Your task to perform on an android device: Searchfor good French restaurants Image 0: 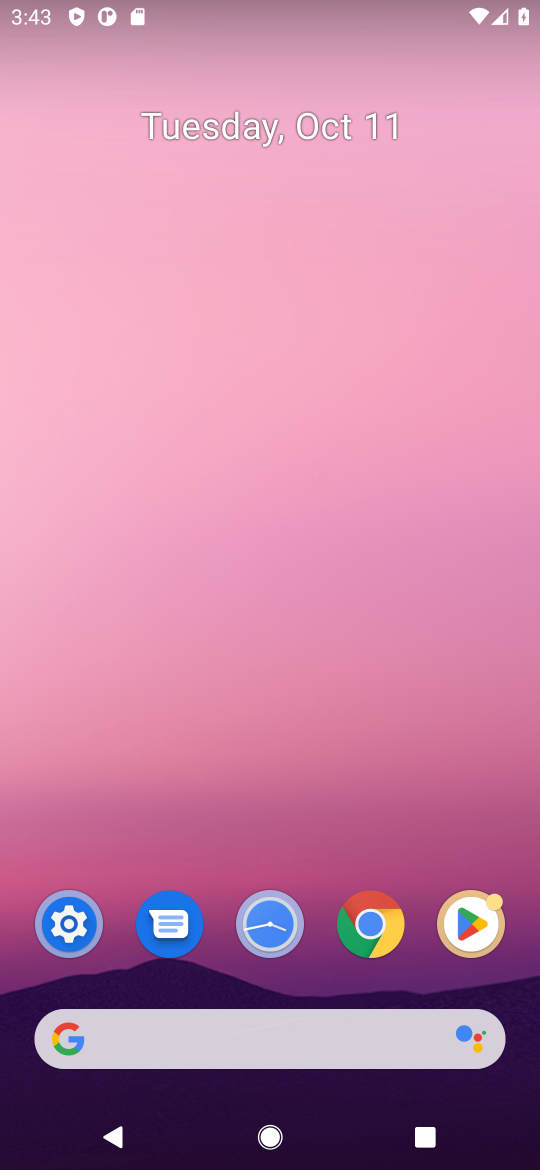
Step 0: drag from (338, 937) to (399, 171)
Your task to perform on an android device: Searchfor good French restaurants Image 1: 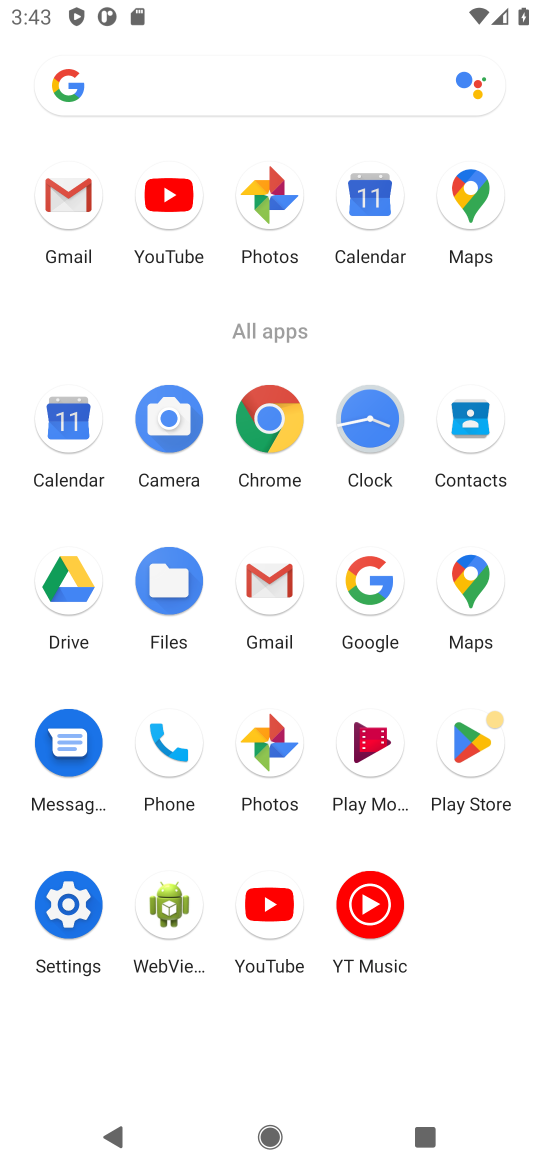
Step 1: click (274, 418)
Your task to perform on an android device: Searchfor good French restaurants Image 2: 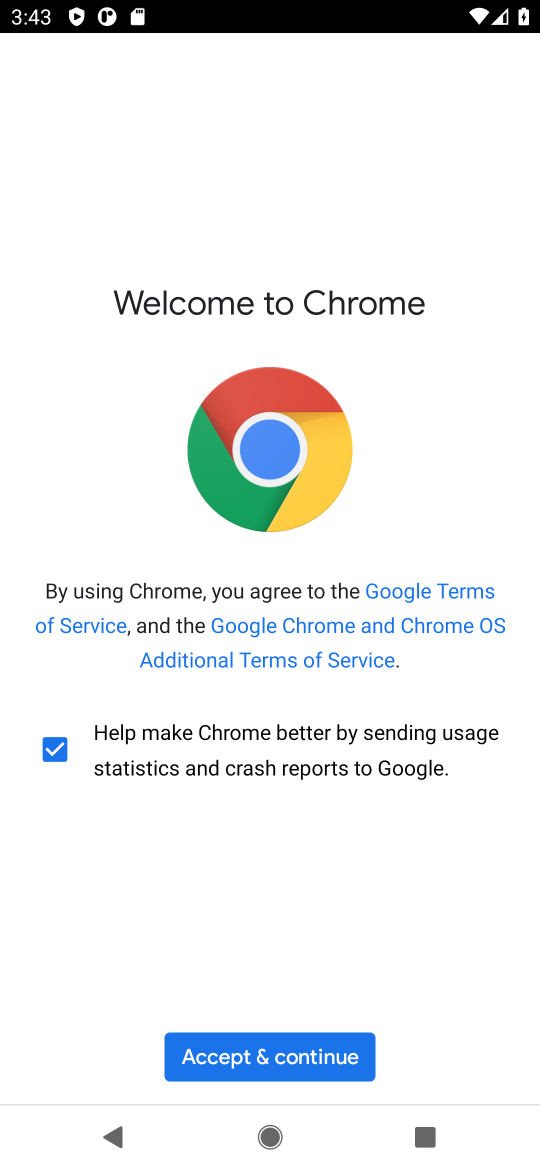
Step 2: click (266, 1055)
Your task to perform on an android device: Searchfor good French restaurants Image 3: 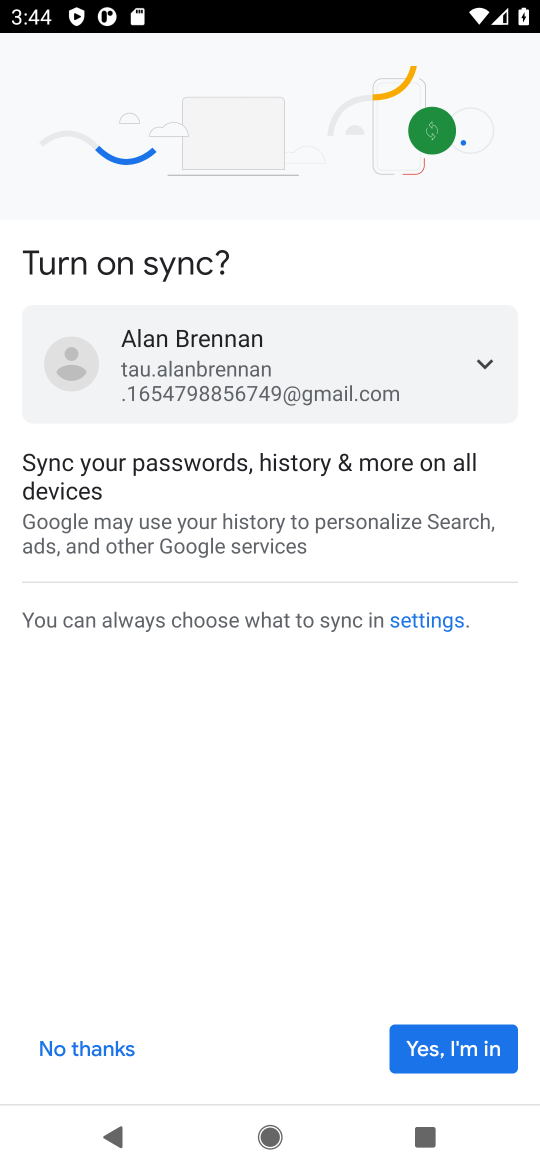
Step 3: click (486, 1046)
Your task to perform on an android device: Searchfor good French restaurants Image 4: 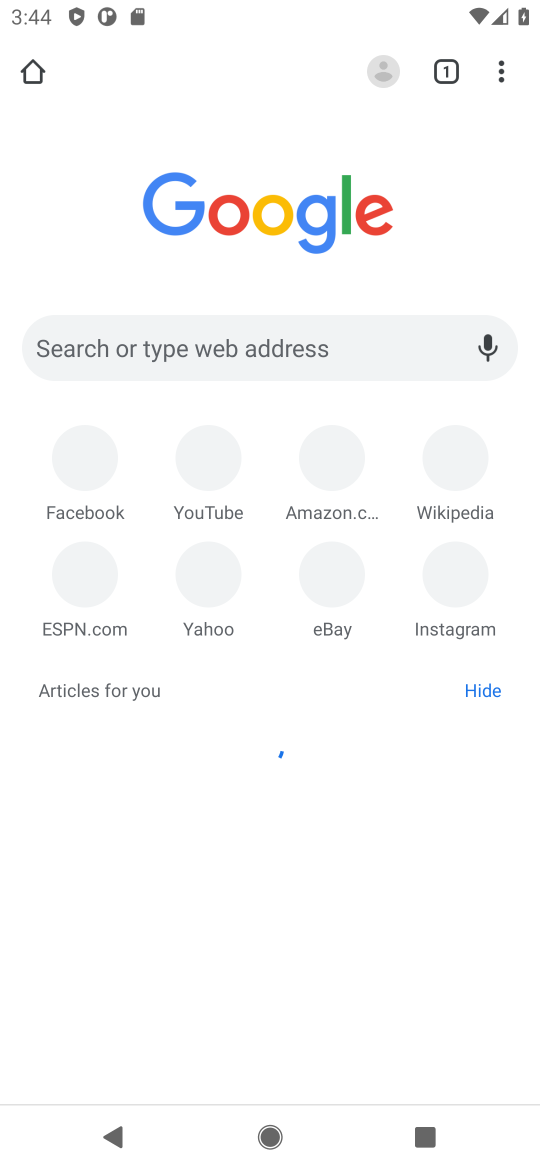
Step 4: click (307, 335)
Your task to perform on an android device: Searchfor good French restaurants Image 5: 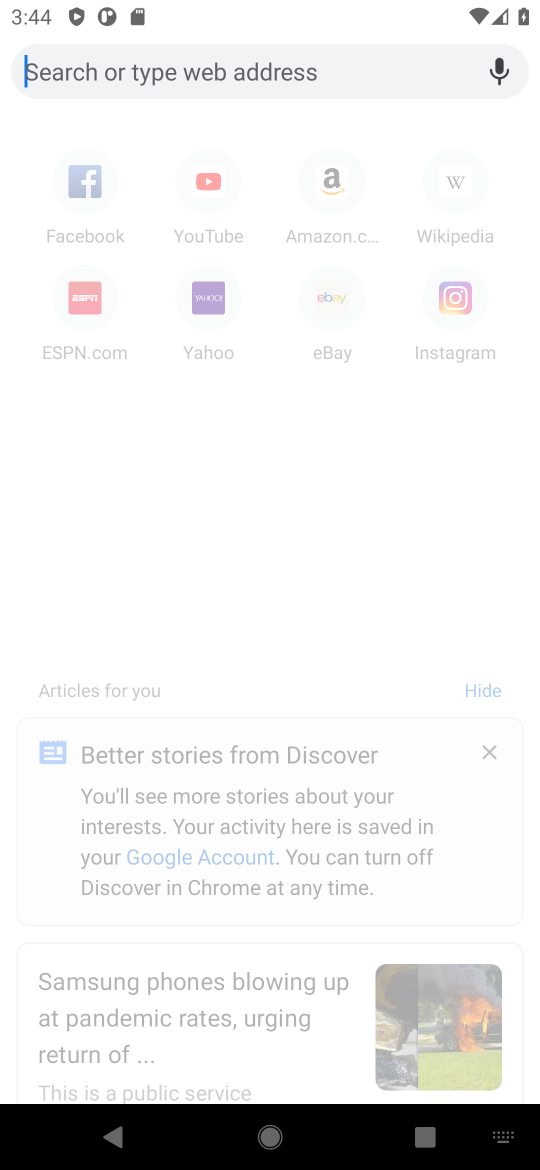
Step 5: type "good French restaurants"
Your task to perform on an android device: Searchfor good French restaurants Image 6: 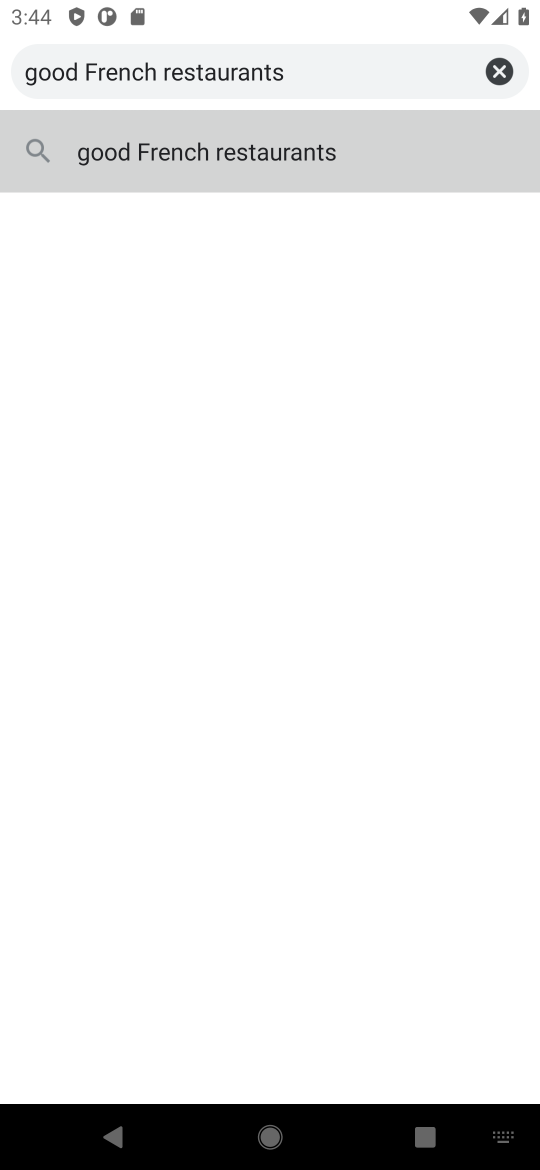
Step 6: press enter
Your task to perform on an android device: Searchfor good French restaurants Image 7: 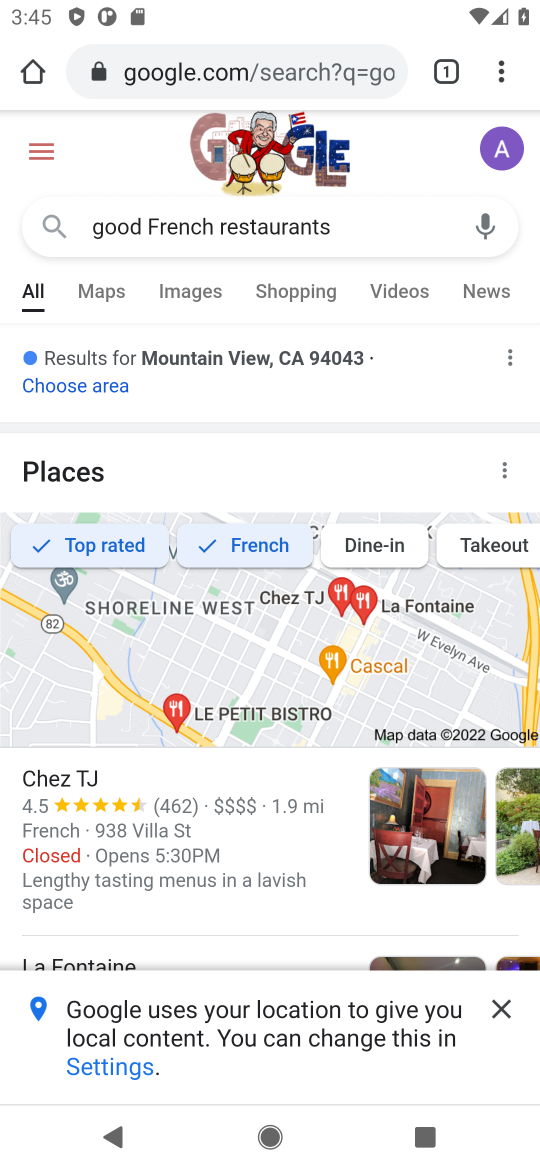
Step 7: task complete